Your task to perform on an android device: Open CNN.com Image 0: 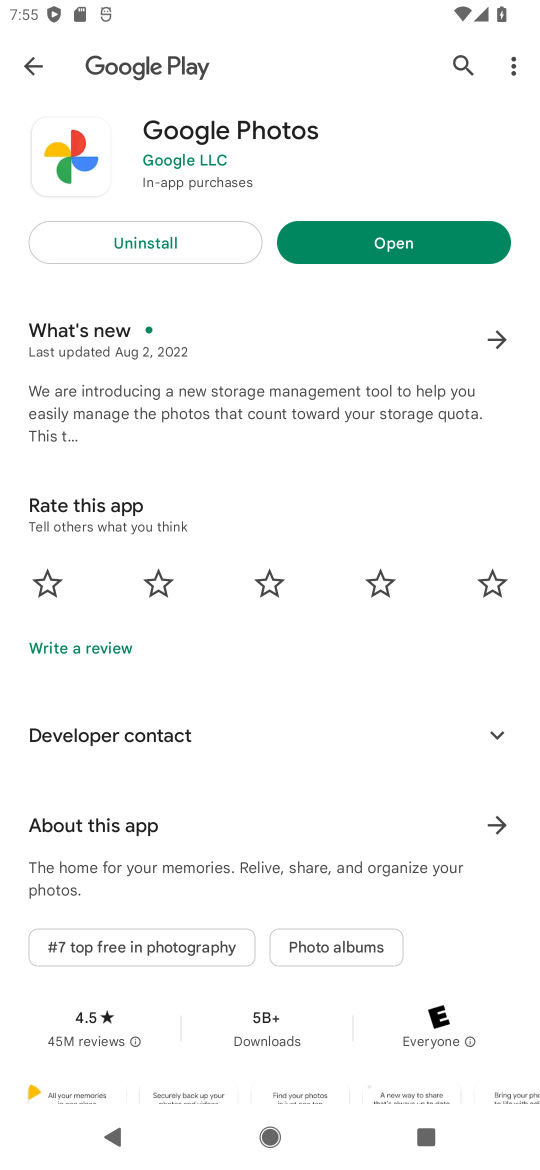
Step 0: press home button
Your task to perform on an android device: Open CNN.com Image 1: 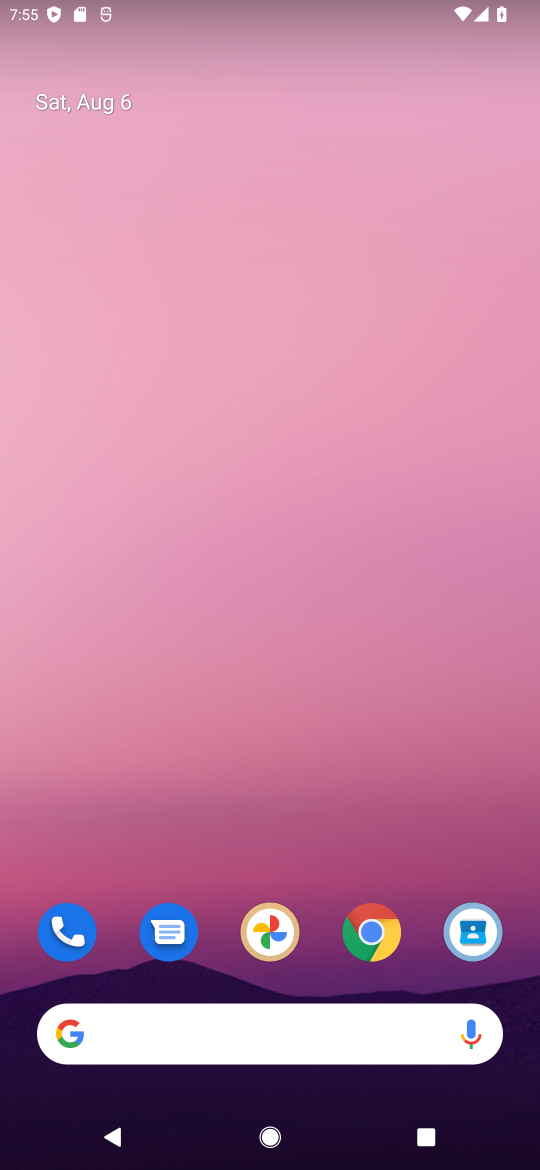
Step 1: click (371, 923)
Your task to perform on an android device: Open CNN.com Image 2: 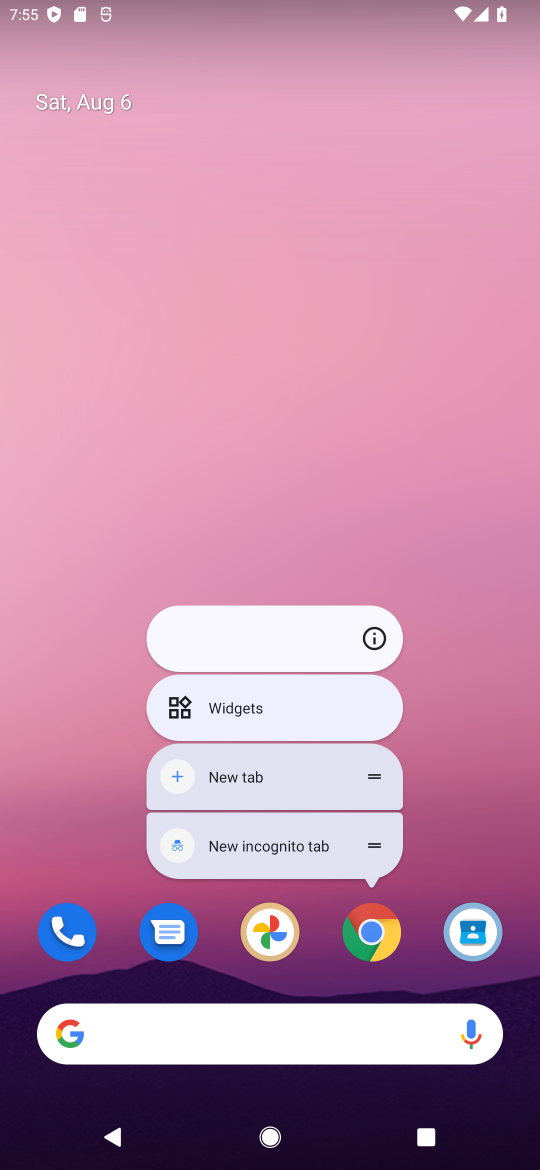
Step 2: click (359, 942)
Your task to perform on an android device: Open CNN.com Image 3: 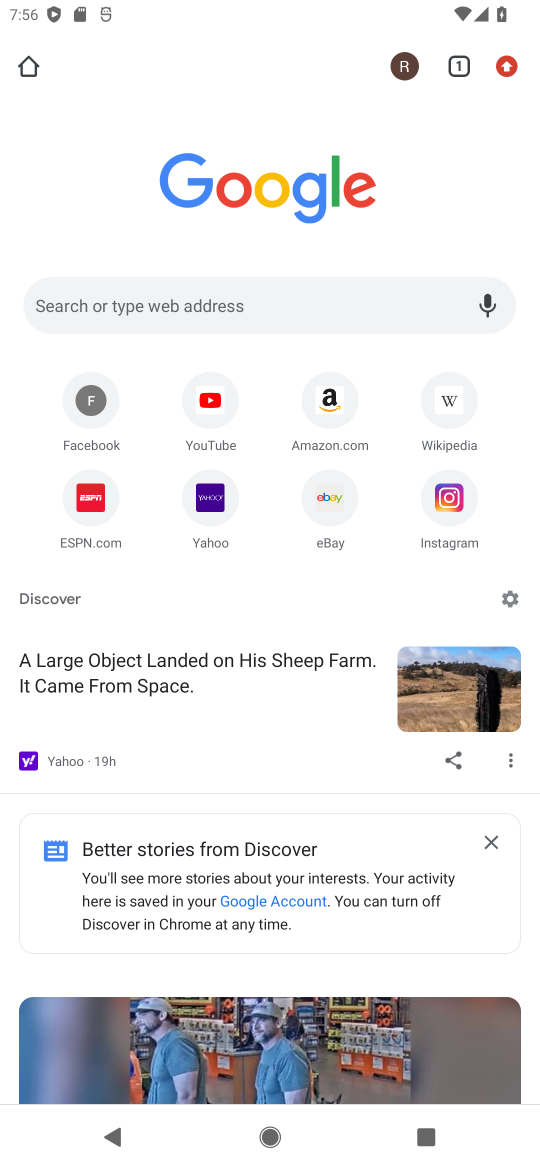
Step 3: click (154, 297)
Your task to perform on an android device: Open CNN.com Image 4: 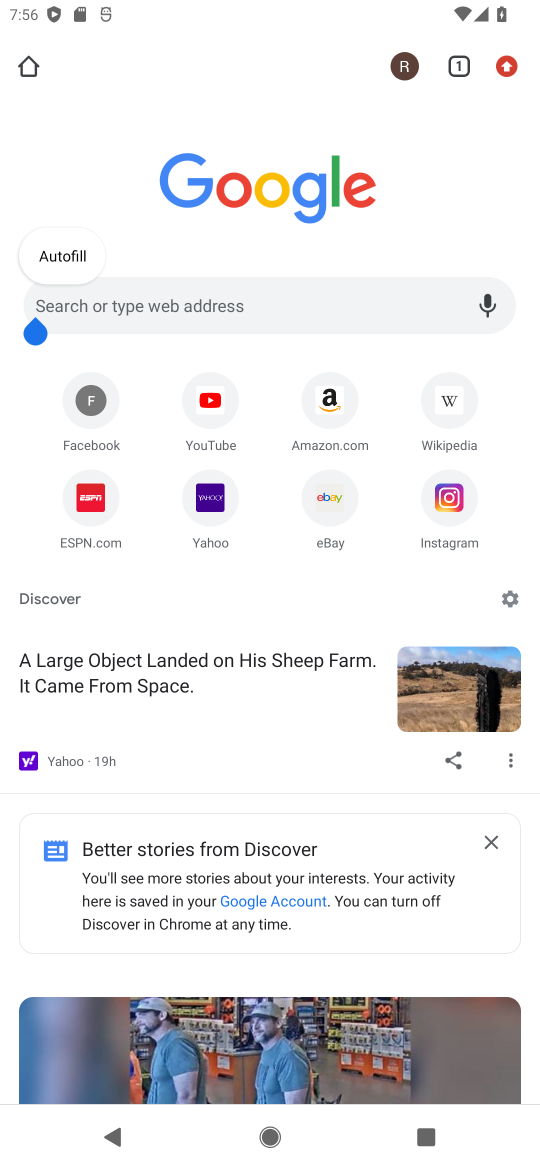
Step 4: click (154, 296)
Your task to perform on an android device: Open CNN.com Image 5: 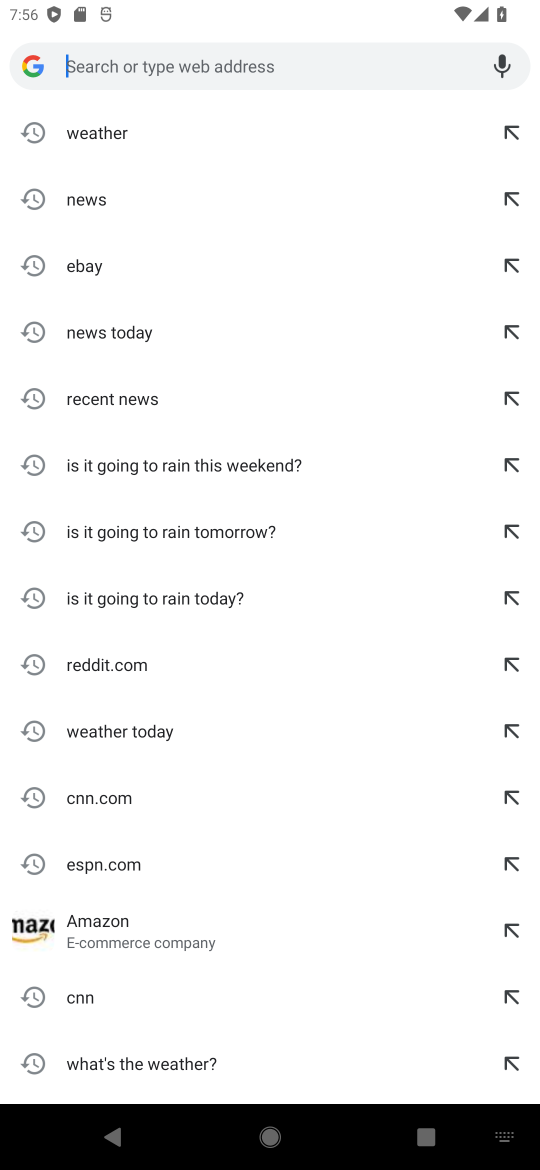
Step 5: type "CNN.com"
Your task to perform on an android device: Open CNN.com Image 6: 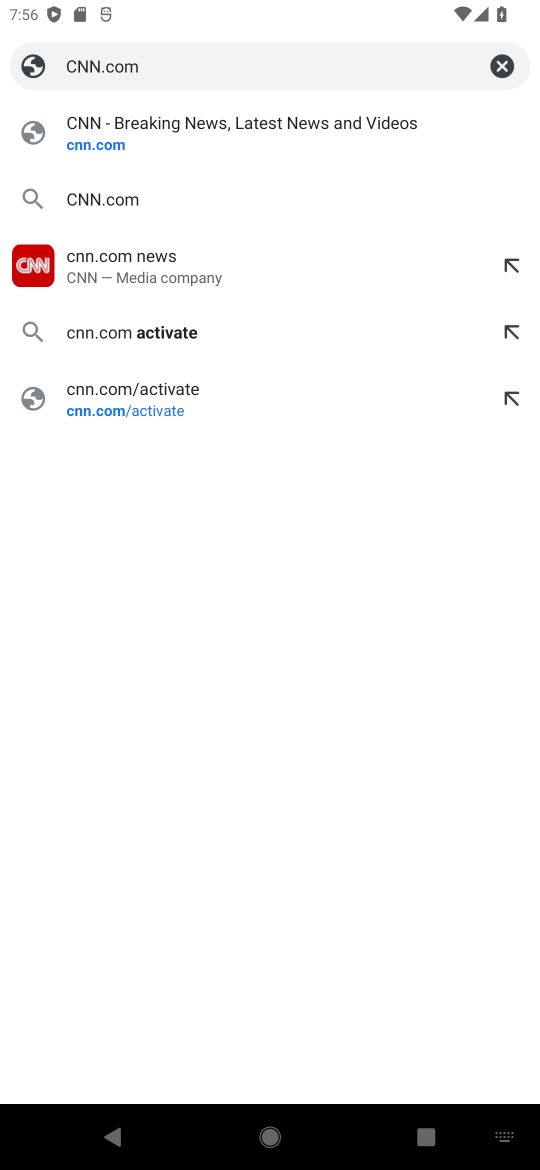
Step 6: click (106, 122)
Your task to perform on an android device: Open CNN.com Image 7: 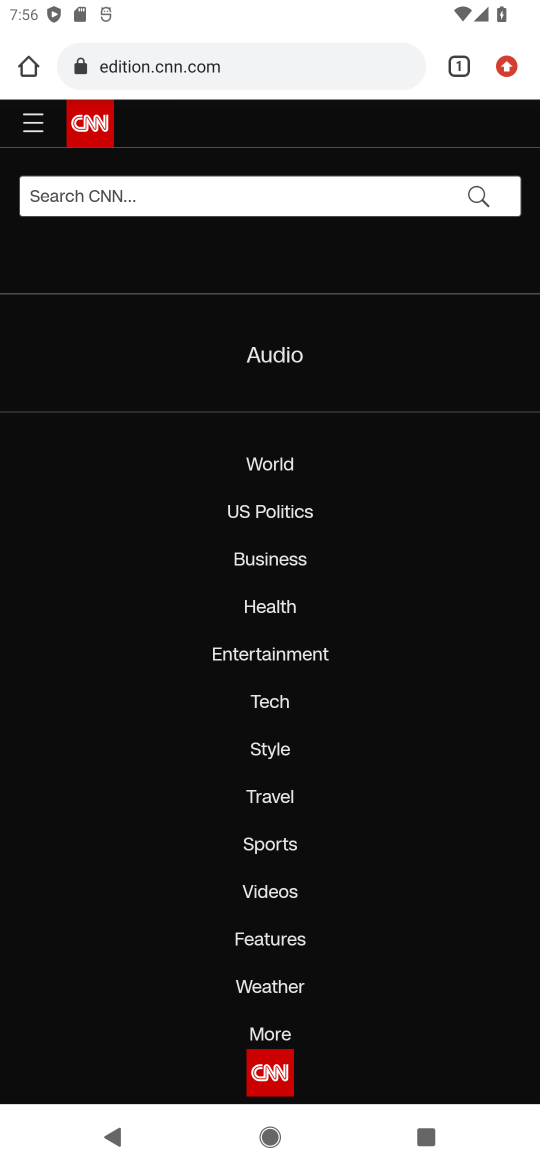
Step 7: task complete